Your task to perform on an android device: turn off location Image 0: 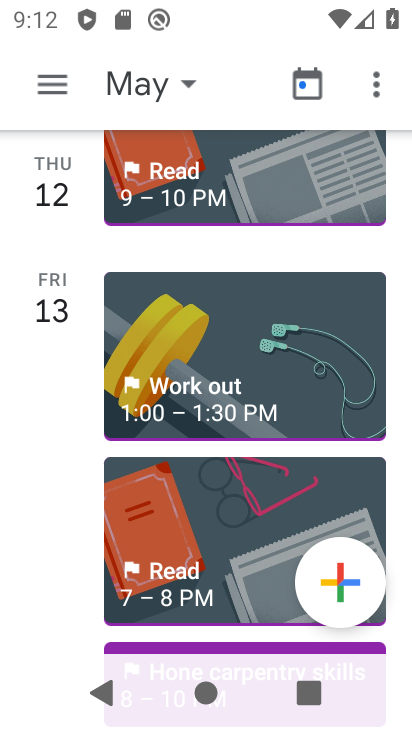
Step 0: press back button
Your task to perform on an android device: turn off location Image 1: 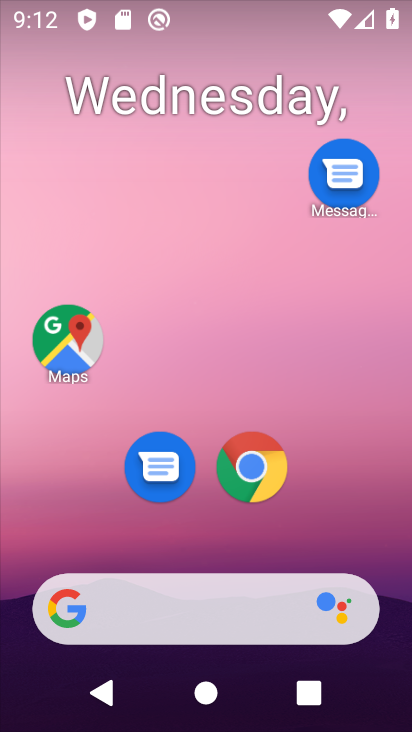
Step 1: drag from (346, 535) to (165, 4)
Your task to perform on an android device: turn off location Image 2: 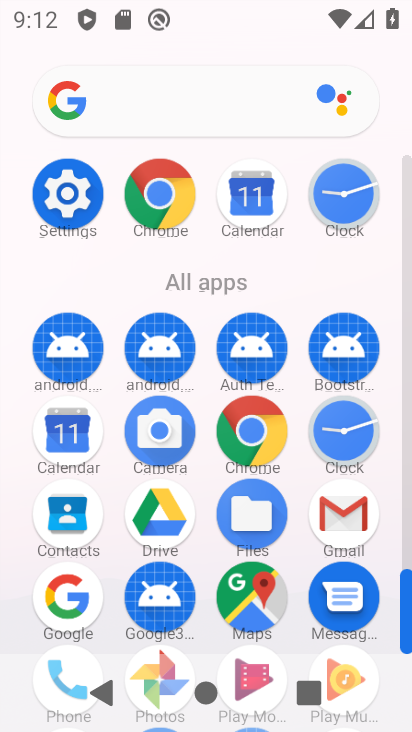
Step 2: click (80, 187)
Your task to perform on an android device: turn off location Image 3: 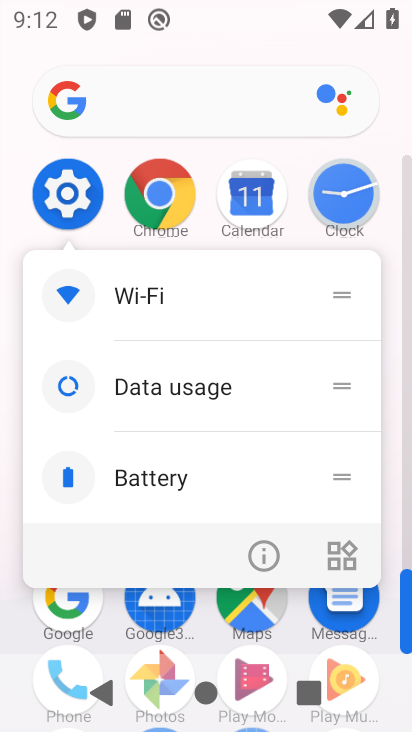
Step 3: click (76, 190)
Your task to perform on an android device: turn off location Image 4: 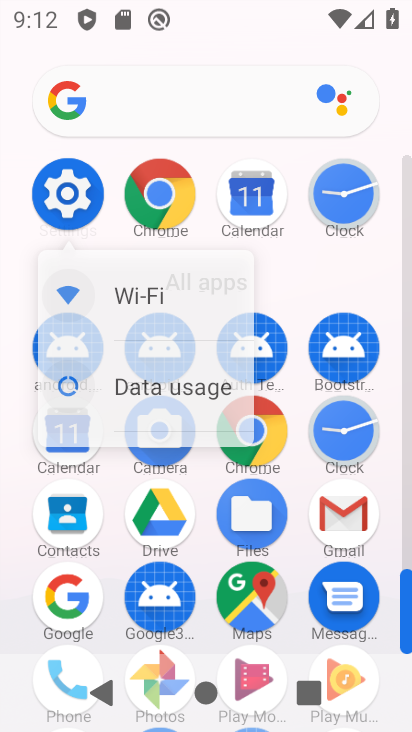
Step 4: click (77, 194)
Your task to perform on an android device: turn off location Image 5: 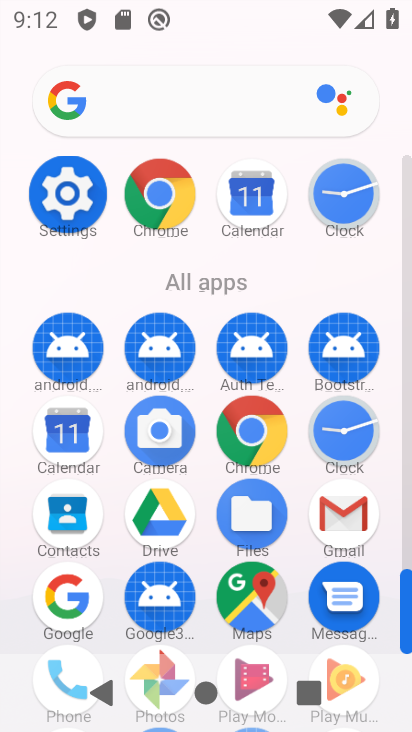
Step 5: click (77, 194)
Your task to perform on an android device: turn off location Image 6: 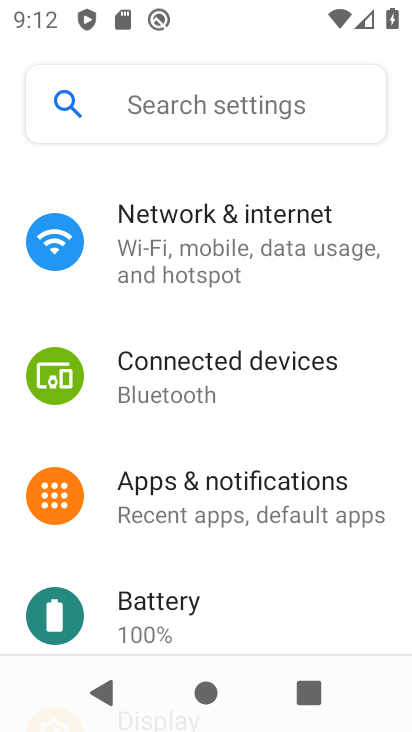
Step 6: click (77, 194)
Your task to perform on an android device: turn off location Image 7: 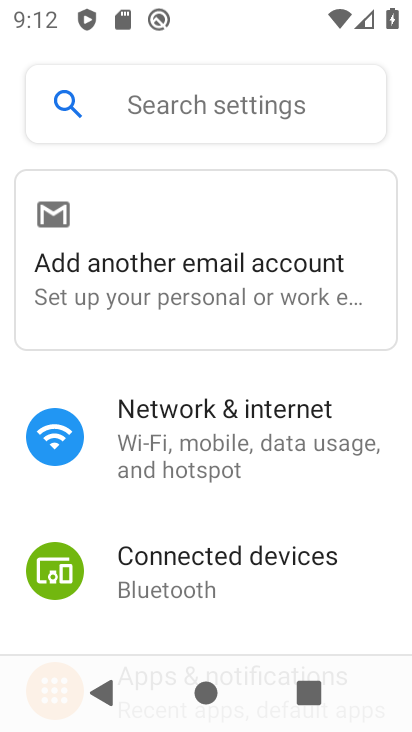
Step 7: drag from (204, 524) to (165, 135)
Your task to perform on an android device: turn off location Image 8: 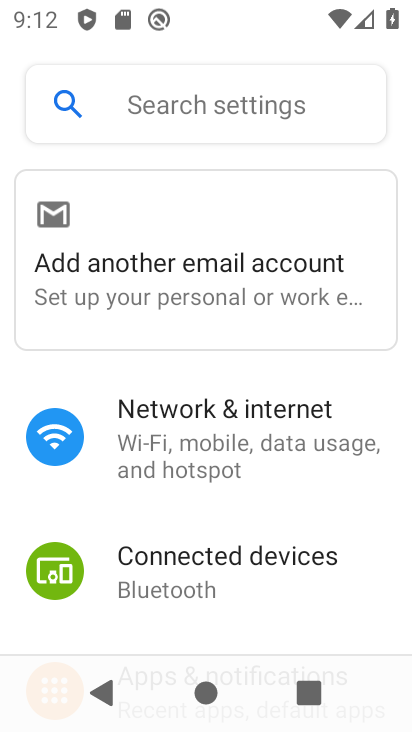
Step 8: drag from (218, 415) to (196, 185)
Your task to perform on an android device: turn off location Image 9: 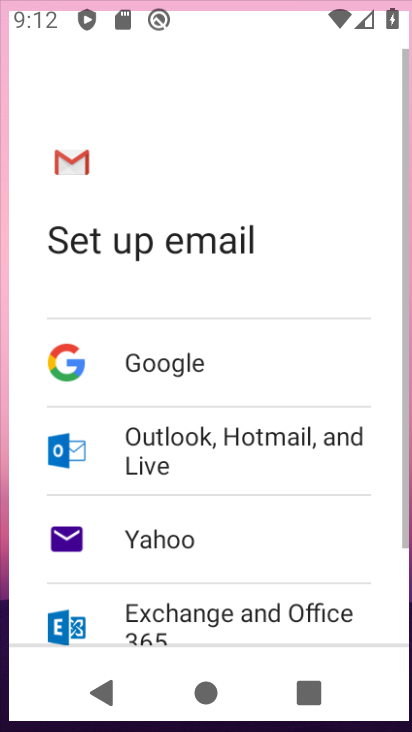
Step 9: drag from (253, 507) to (239, 173)
Your task to perform on an android device: turn off location Image 10: 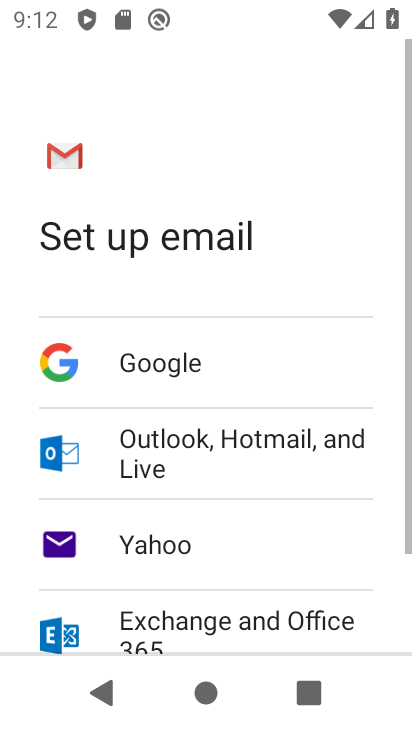
Step 10: drag from (223, 440) to (177, 111)
Your task to perform on an android device: turn off location Image 11: 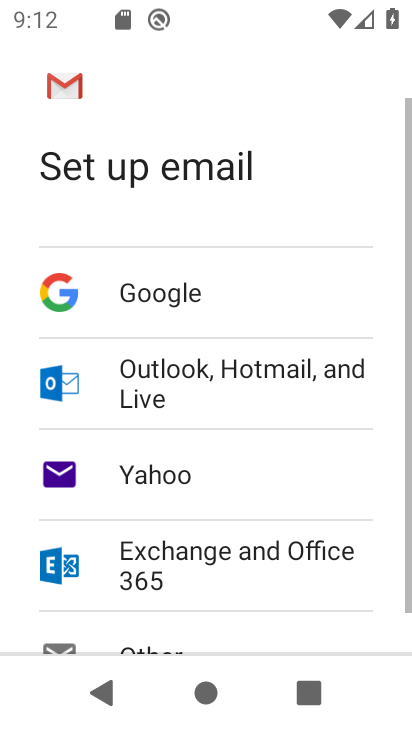
Step 11: press back button
Your task to perform on an android device: turn off location Image 12: 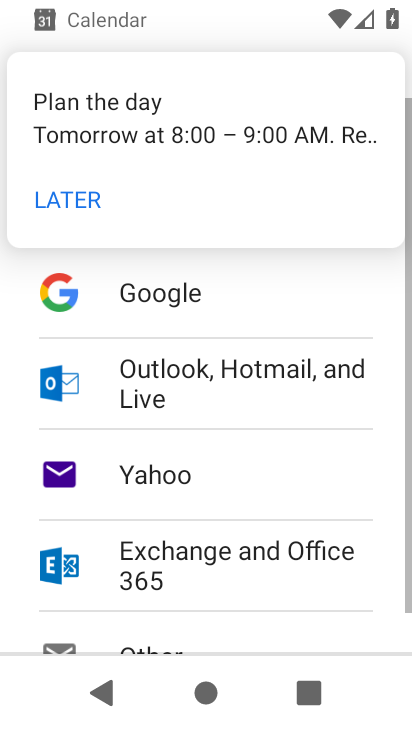
Step 12: press back button
Your task to perform on an android device: turn off location Image 13: 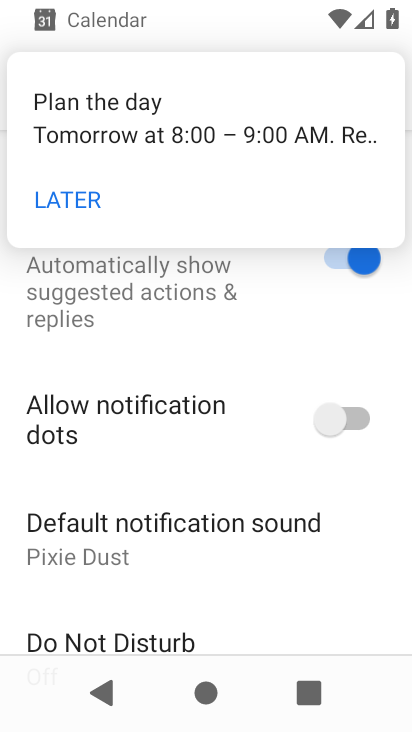
Step 13: press back button
Your task to perform on an android device: turn off location Image 14: 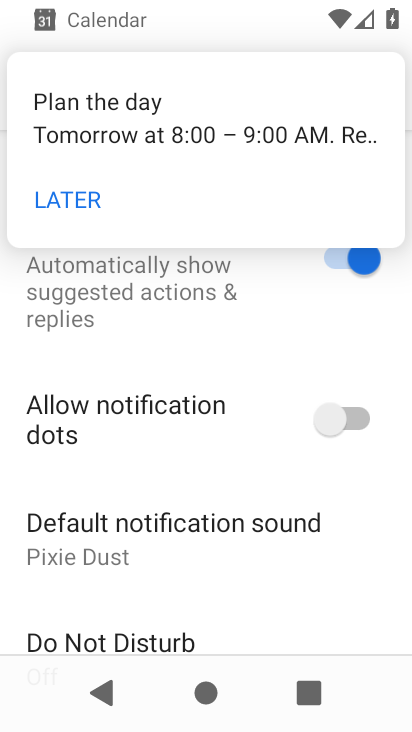
Step 14: press home button
Your task to perform on an android device: turn off location Image 15: 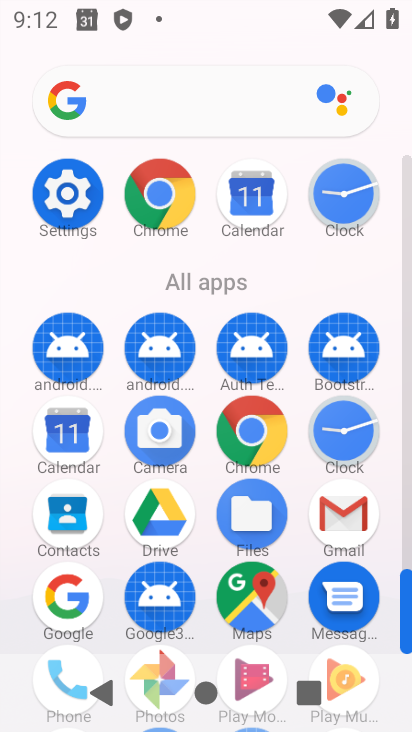
Step 15: press home button
Your task to perform on an android device: turn off location Image 16: 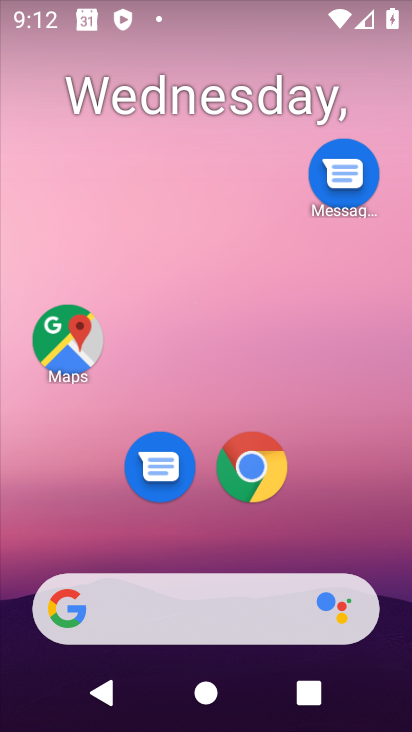
Step 16: drag from (239, 447) to (178, 72)
Your task to perform on an android device: turn off location Image 17: 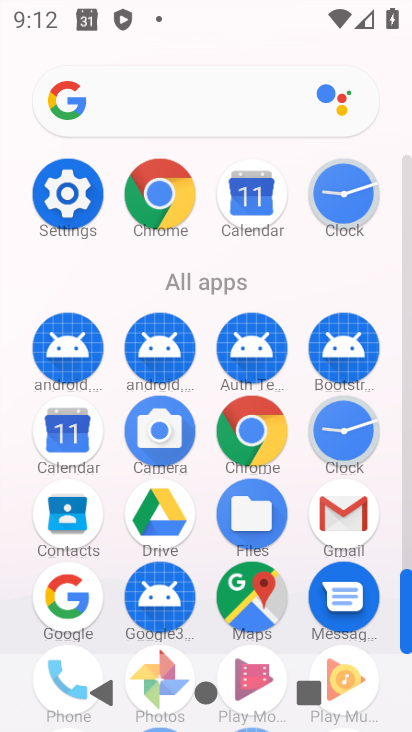
Step 17: click (72, 193)
Your task to perform on an android device: turn off location Image 18: 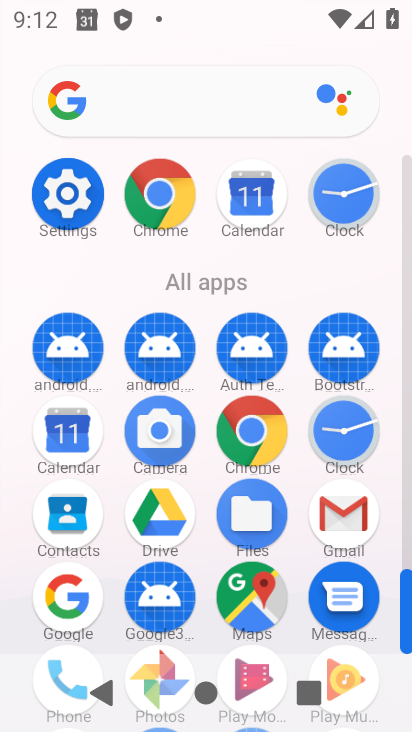
Step 18: click (72, 193)
Your task to perform on an android device: turn off location Image 19: 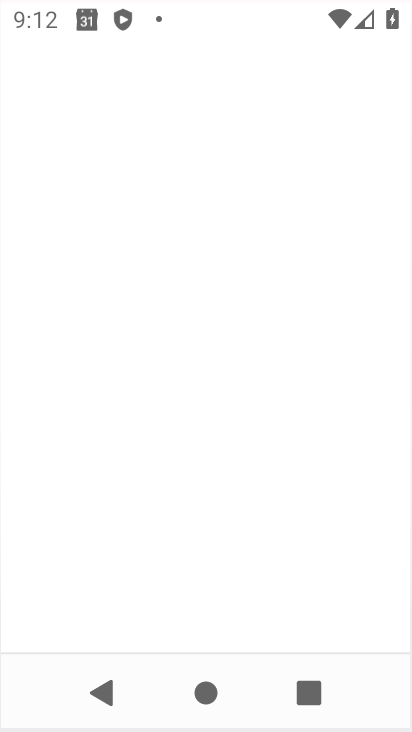
Step 19: click (72, 193)
Your task to perform on an android device: turn off location Image 20: 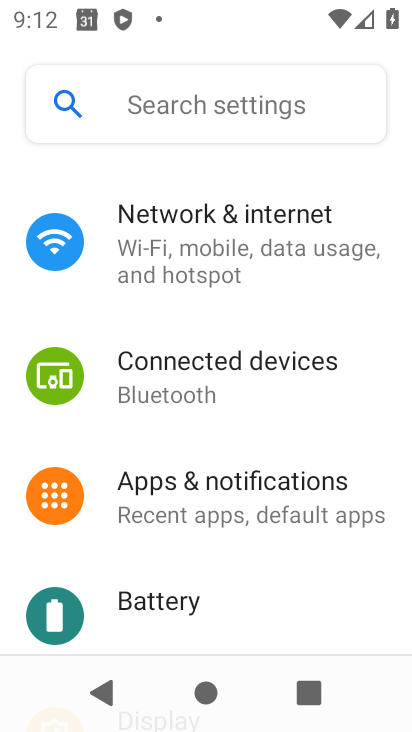
Step 20: click (72, 193)
Your task to perform on an android device: turn off location Image 21: 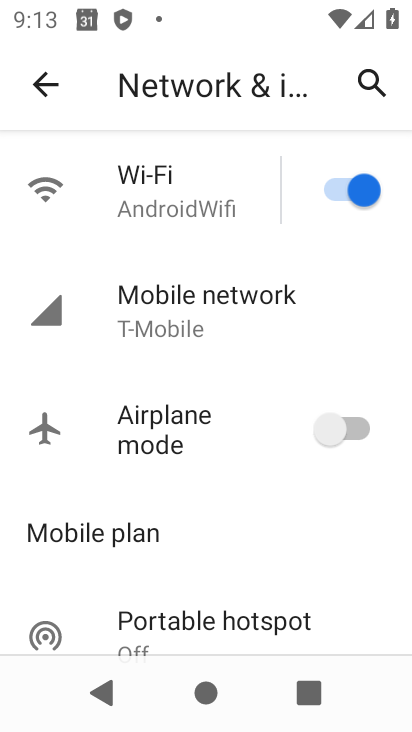
Step 21: click (49, 83)
Your task to perform on an android device: turn off location Image 22: 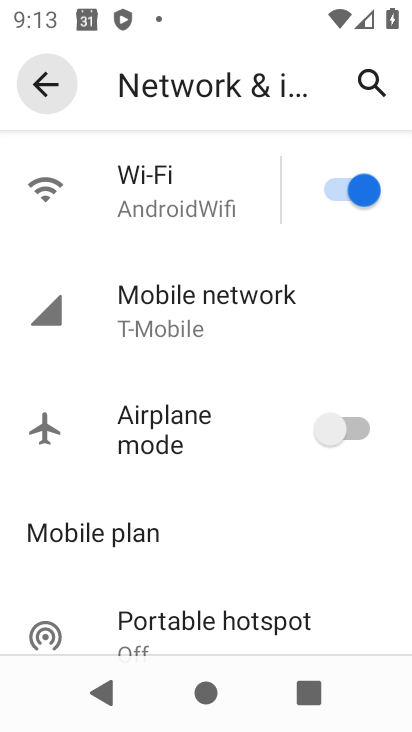
Step 22: press back button
Your task to perform on an android device: turn off location Image 23: 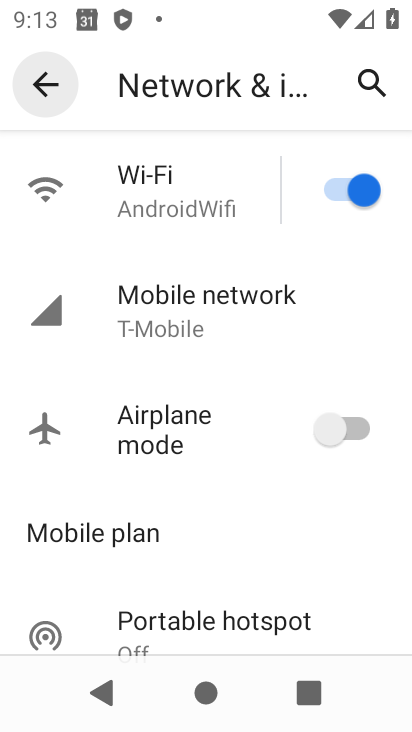
Step 23: click (46, 88)
Your task to perform on an android device: turn off location Image 24: 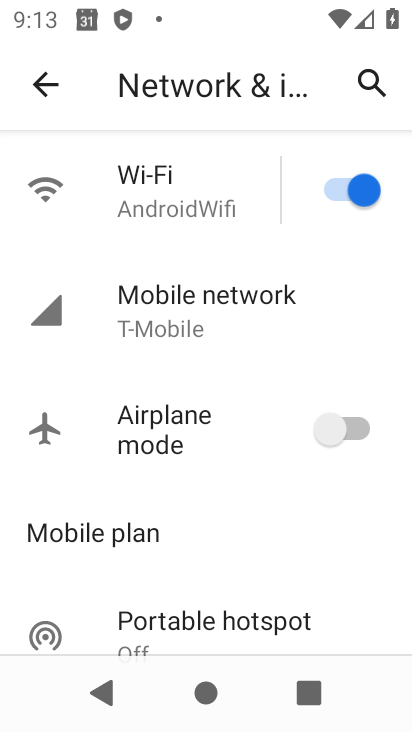
Step 24: click (45, 88)
Your task to perform on an android device: turn off location Image 25: 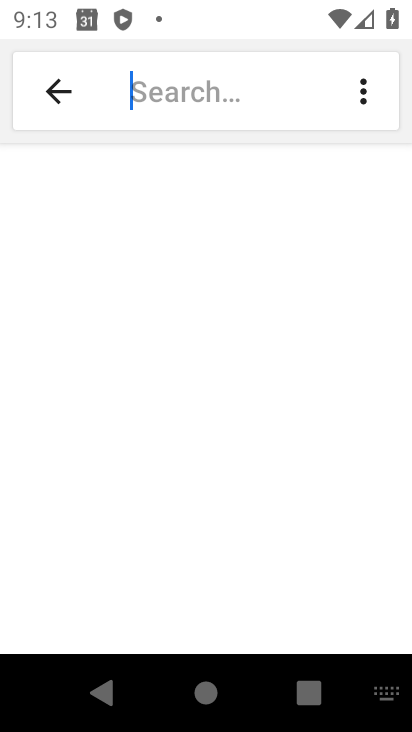
Step 25: drag from (203, 514) to (146, 279)
Your task to perform on an android device: turn off location Image 26: 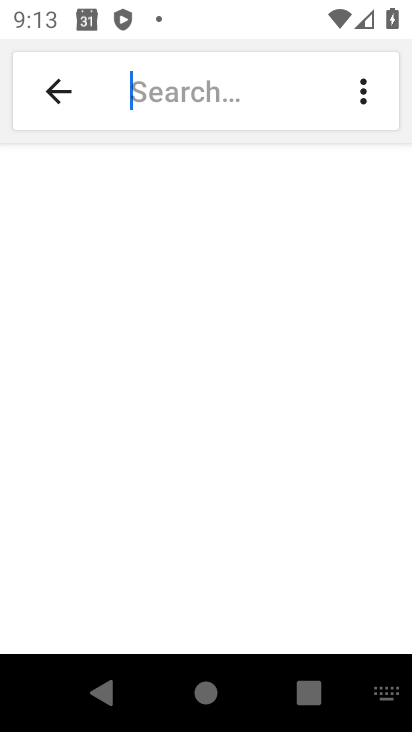
Step 26: drag from (215, 535) to (132, 121)
Your task to perform on an android device: turn off location Image 27: 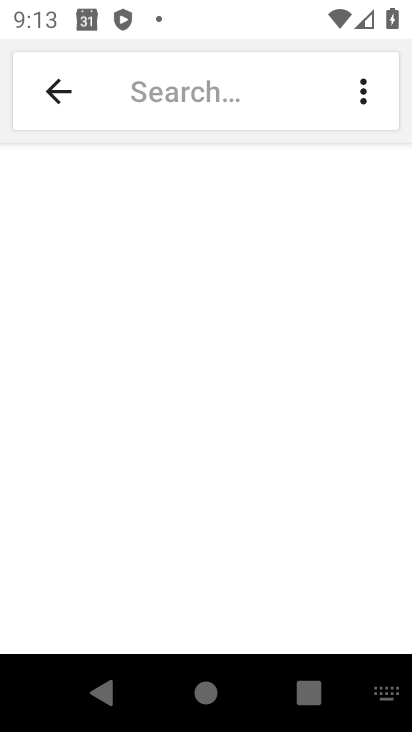
Step 27: click (38, 83)
Your task to perform on an android device: turn off location Image 28: 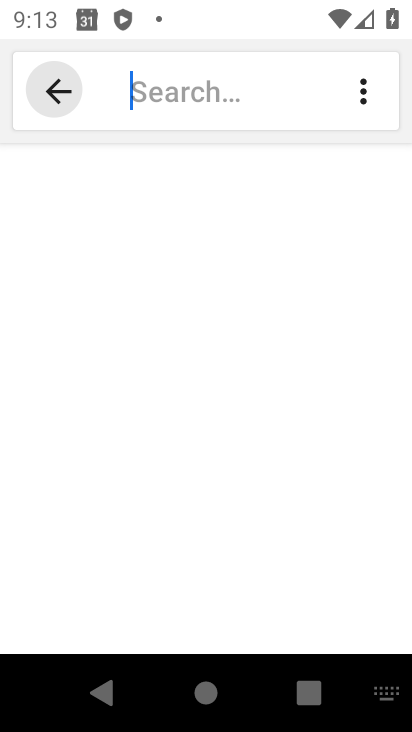
Step 28: click (57, 90)
Your task to perform on an android device: turn off location Image 29: 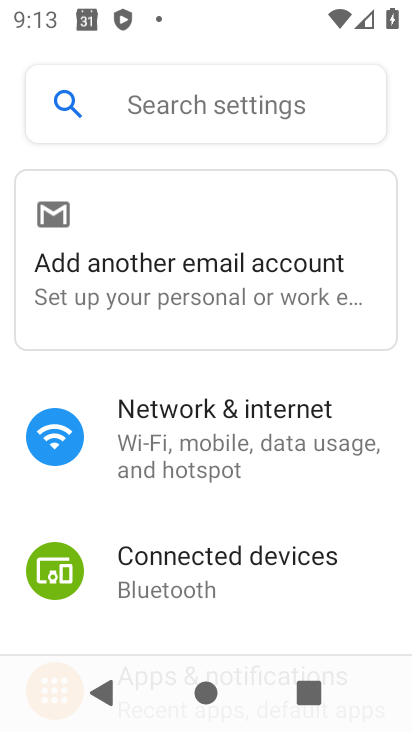
Step 29: click (57, 90)
Your task to perform on an android device: turn off location Image 30: 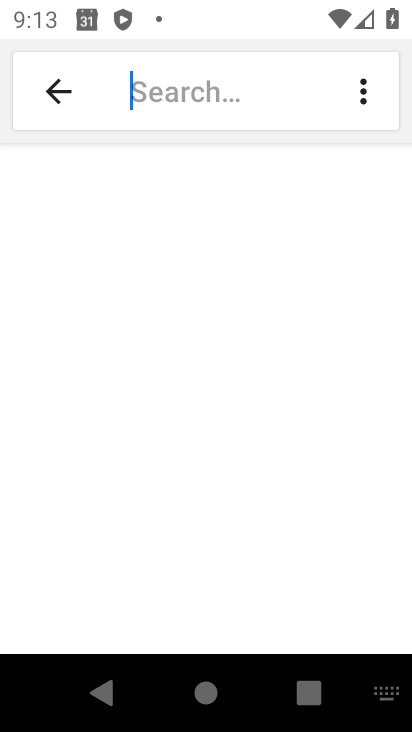
Step 30: press back button
Your task to perform on an android device: turn off location Image 31: 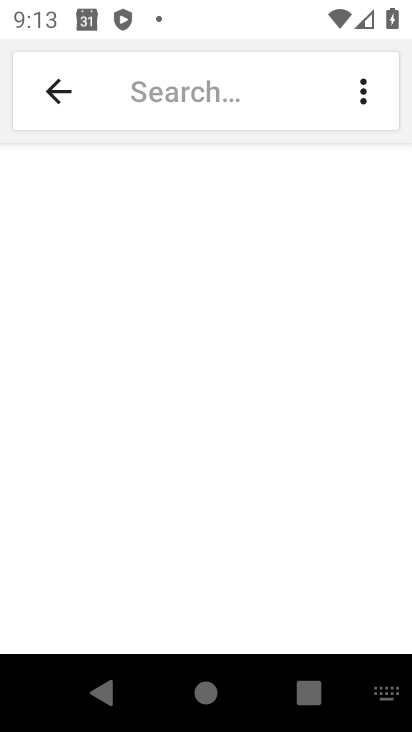
Step 31: press back button
Your task to perform on an android device: turn off location Image 32: 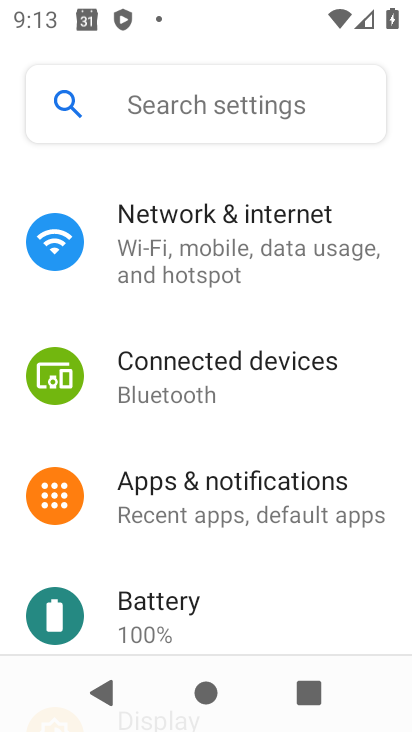
Step 32: press back button
Your task to perform on an android device: turn off location Image 33: 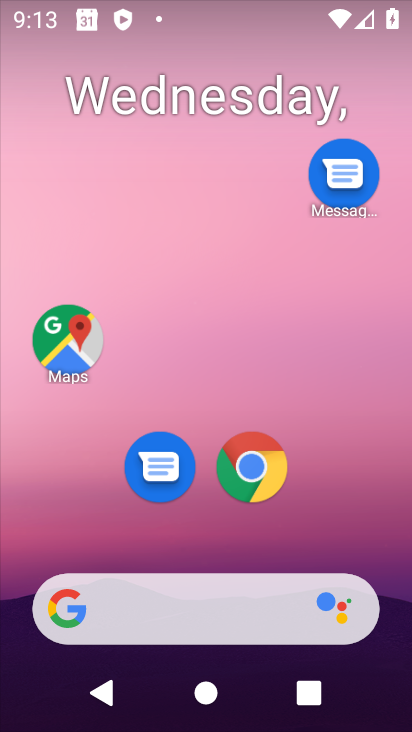
Step 33: drag from (346, 505) to (123, 0)
Your task to perform on an android device: turn off location Image 34: 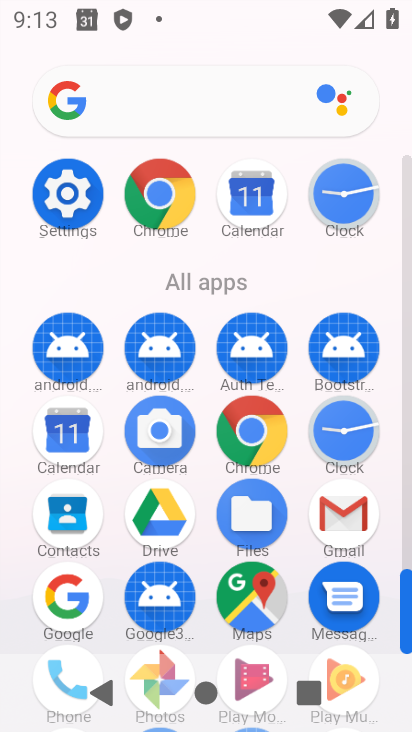
Step 34: click (70, 179)
Your task to perform on an android device: turn off location Image 35: 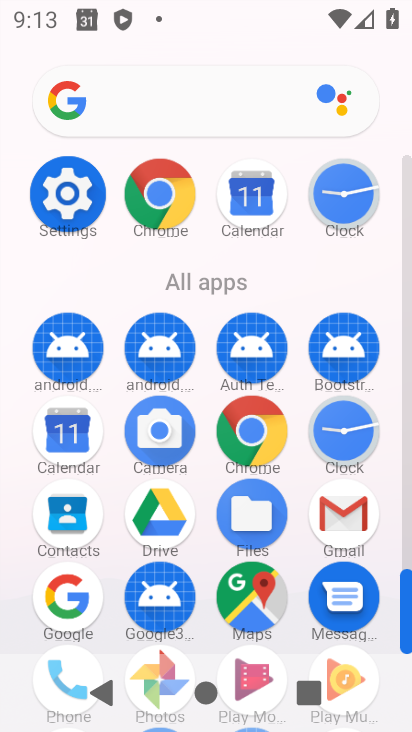
Step 35: click (72, 180)
Your task to perform on an android device: turn off location Image 36: 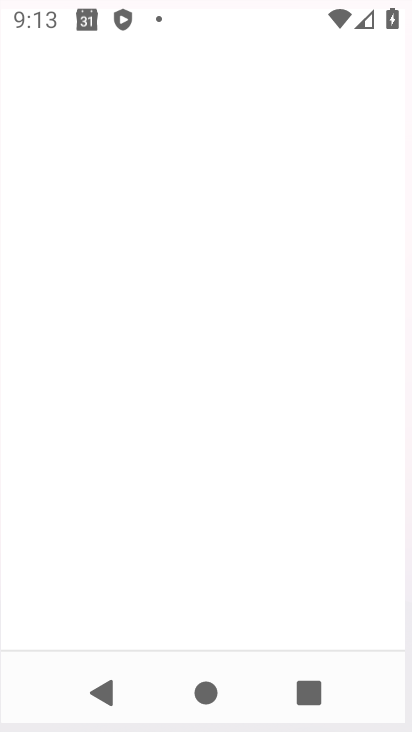
Step 36: click (86, 183)
Your task to perform on an android device: turn off location Image 37: 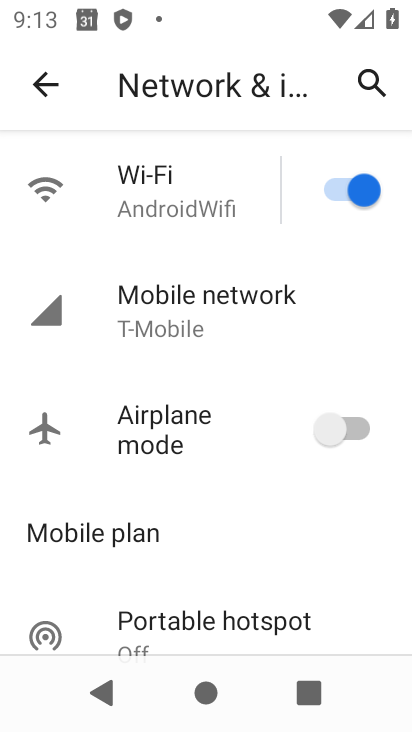
Step 37: click (33, 78)
Your task to perform on an android device: turn off location Image 38: 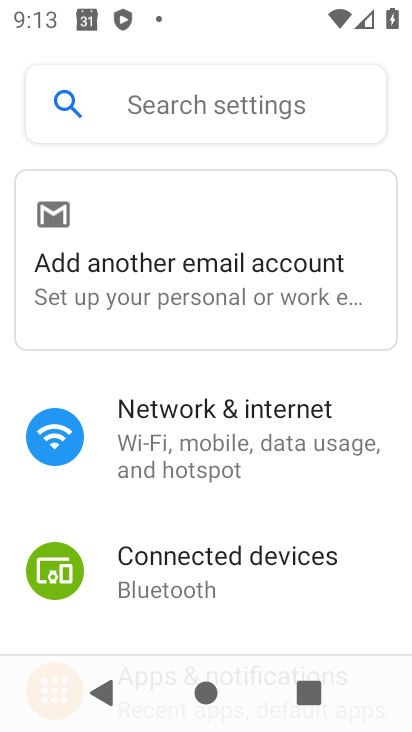
Step 38: drag from (224, 536) to (99, 30)
Your task to perform on an android device: turn off location Image 39: 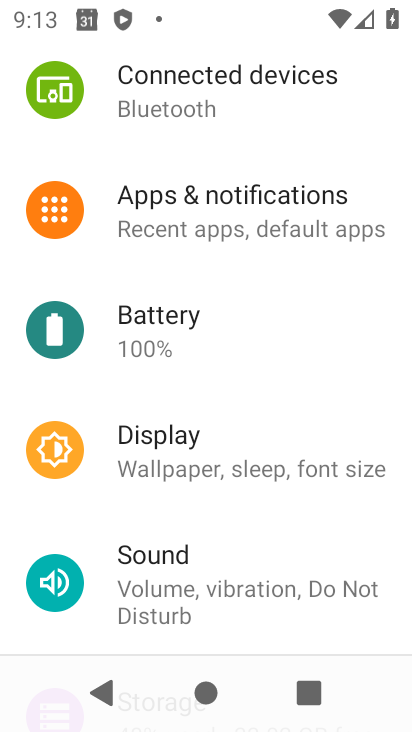
Step 39: drag from (201, 501) to (201, 100)
Your task to perform on an android device: turn off location Image 40: 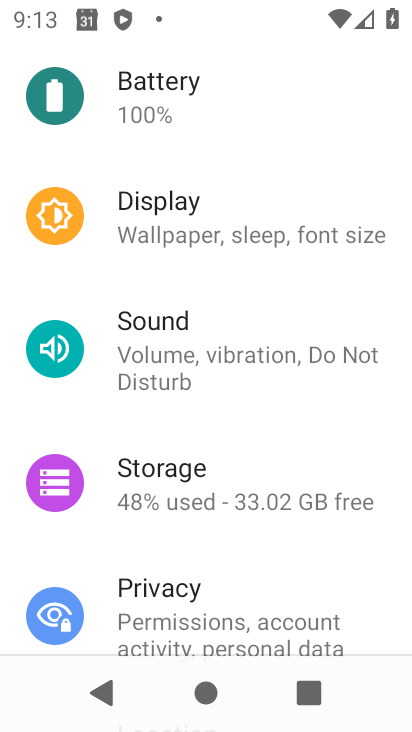
Step 40: drag from (274, 487) to (275, 64)
Your task to perform on an android device: turn off location Image 41: 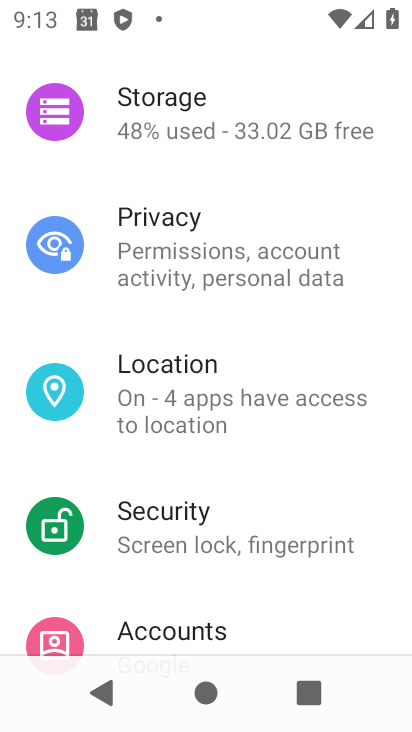
Step 41: click (166, 386)
Your task to perform on an android device: turn off location Image 42: 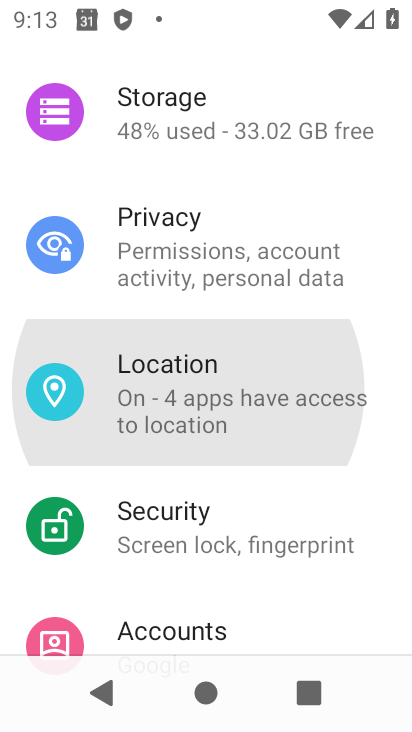
Step 42: click (166, 385)
Your task to perform on an android device: turn off location Image 43: 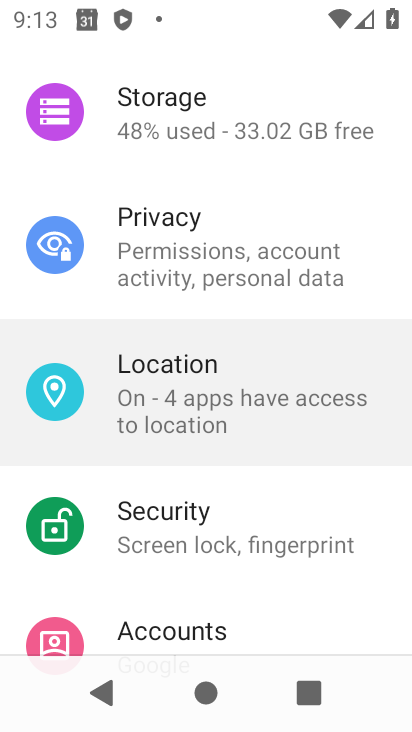
Step 43: click (168, 384)
Your task to perform on an android device: turn off location Image 44: 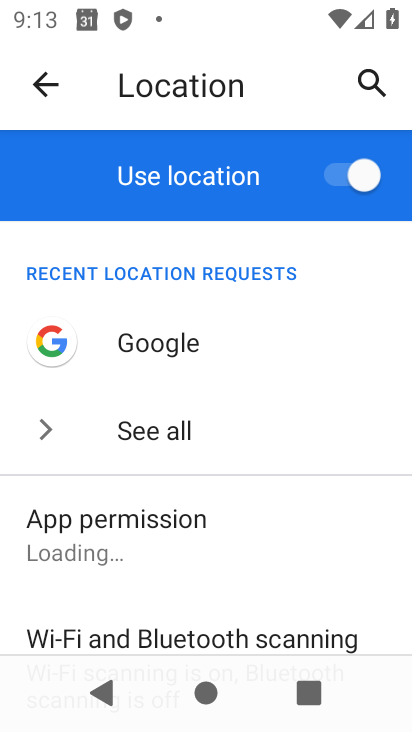
Step 44: click (355, 168)
Your task to perform on an android device: turn off location Image 45: 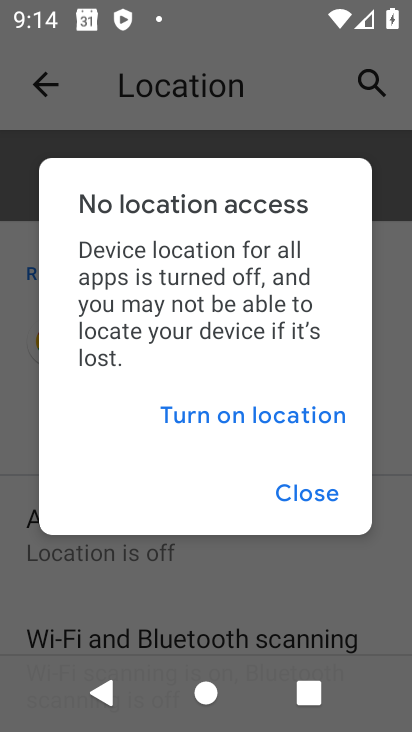
Step 45: task complete